Your task to perform on an android device: Open notification settings Image 0: 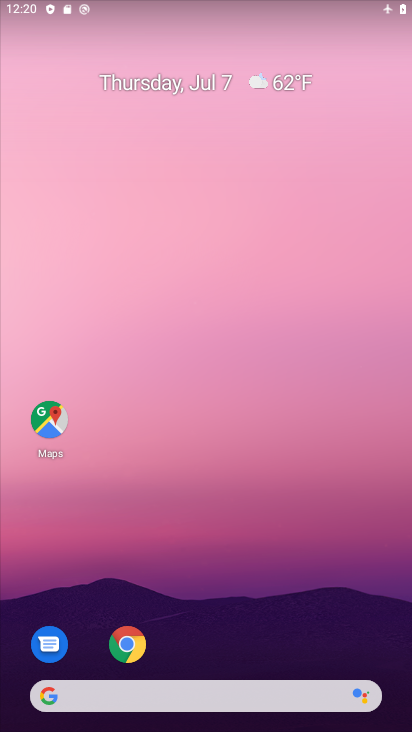
Step 0: drag from (231, 623) to (263, 106)
Your task to perform on an android device: Open notification settings Image 1: 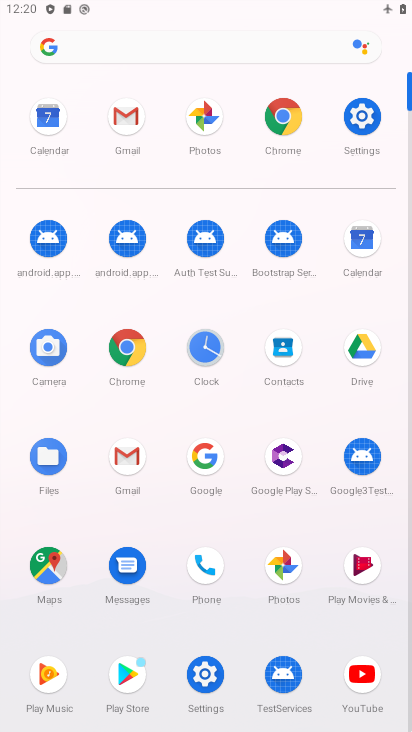
Step 1: click (367, 125)
Your task to perform on an android device: Open notification settings Image 2: 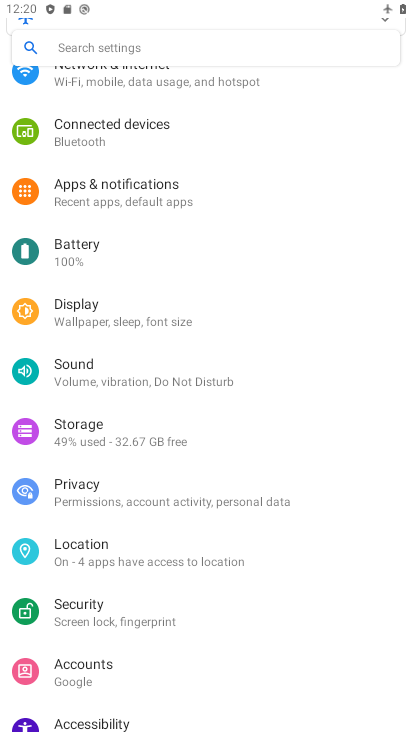
Step 2: click (206, 199)
Your task to perform on an android device: Open notification settings Image 3: 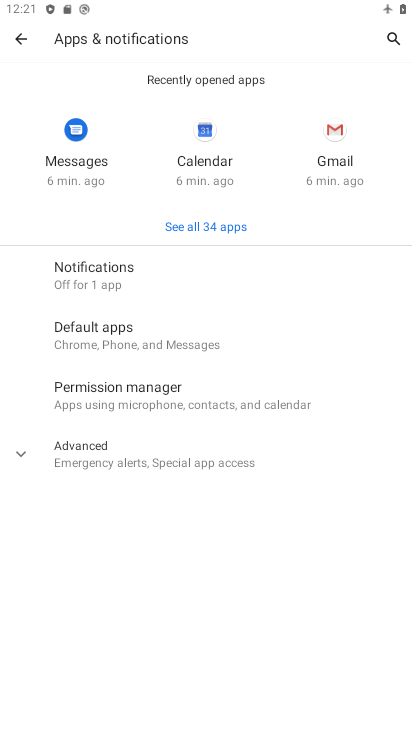
Step 3: task complete